Your task to perform on an android device: make emails show in primary in the gmail app Image 0: 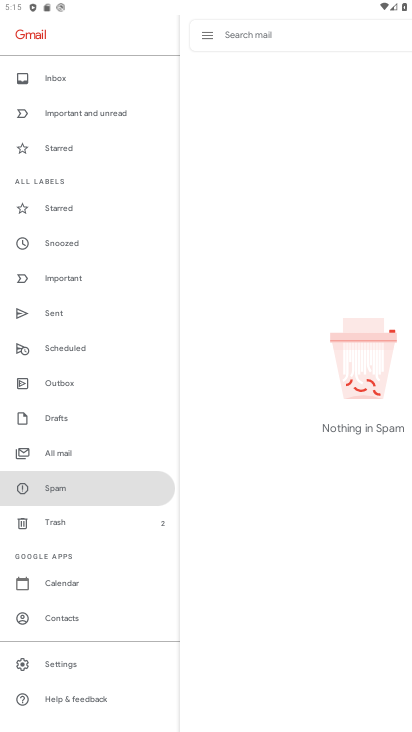
Step 0: press home button
Your task to perform on an android device: make emails show in primary in the gmail app Image 1: 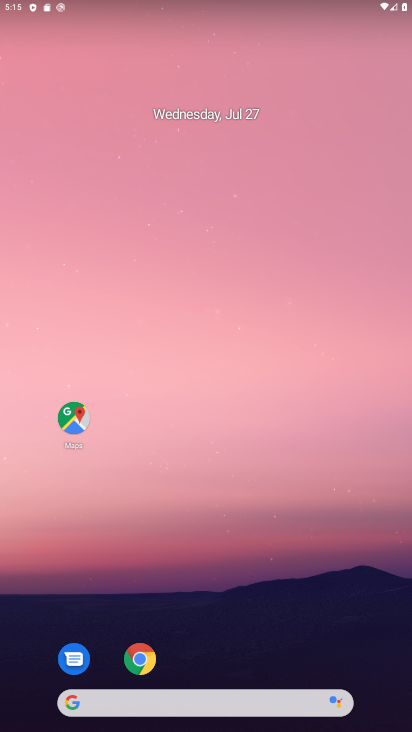
Step 1: drag from (250, 594) to (266, 190)
Your task to perform on an android device: make emails show in primary in the gmail app Image 2: 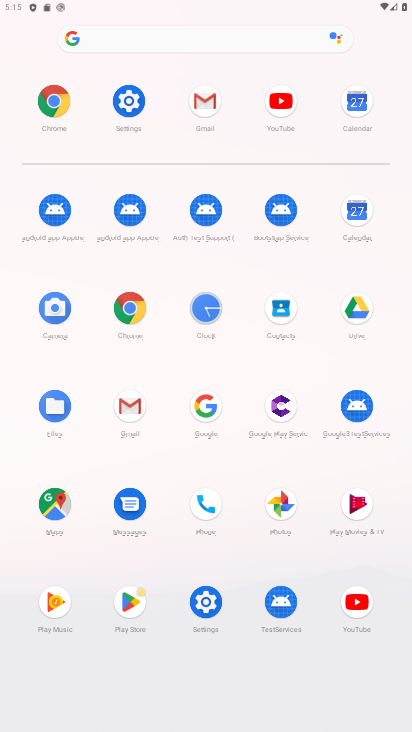
Step 2: click (128, 406)
Your task to perform on an android device: make emails show in primary in the gmail app Image 3: 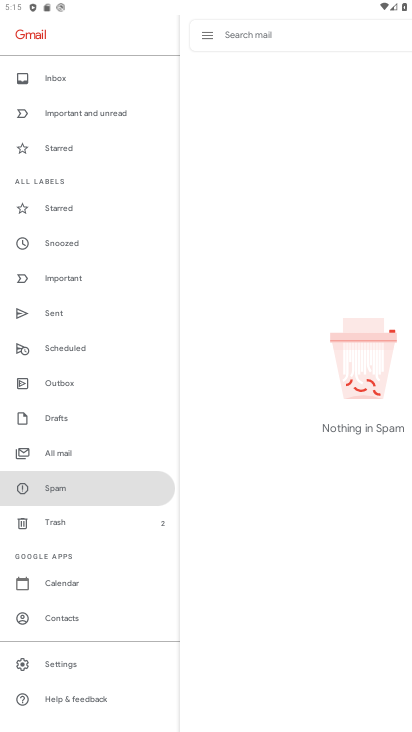
Step 3: drag from (68, 147) to (66, 295)
Your task to perform on an android device: make emails show in primary in the gmail app Image 4: 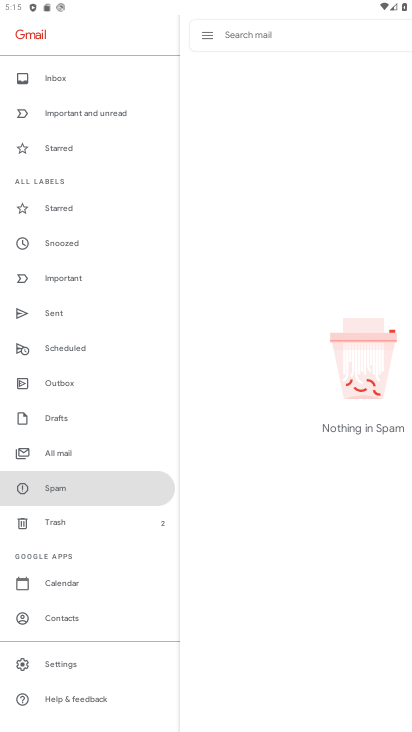
Step 4: click (71, 79)
Your task to perform on an android device: make emails show in primary in the gmail app Image 5: 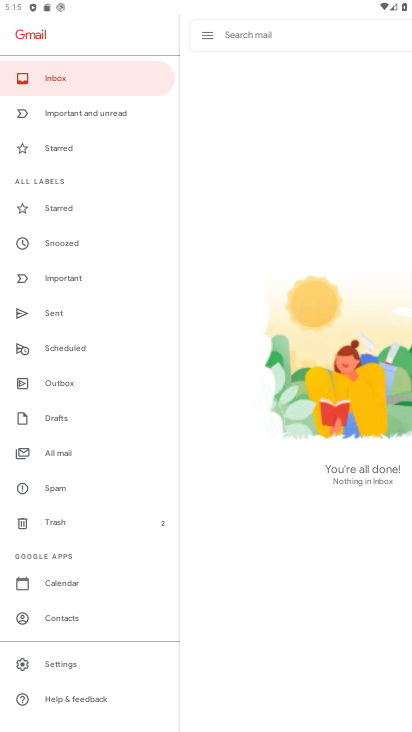
Step 5: task complete